Your task to perform on an android device: find which apps use the phone's location Image 0: 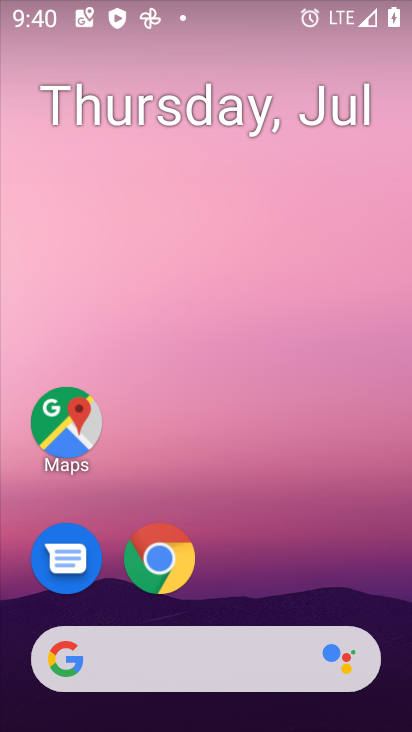
Step 0: drag from (380, 568) to (373, 91)
Your task to perform on an android device: find which apps use the phone's location Image 1: 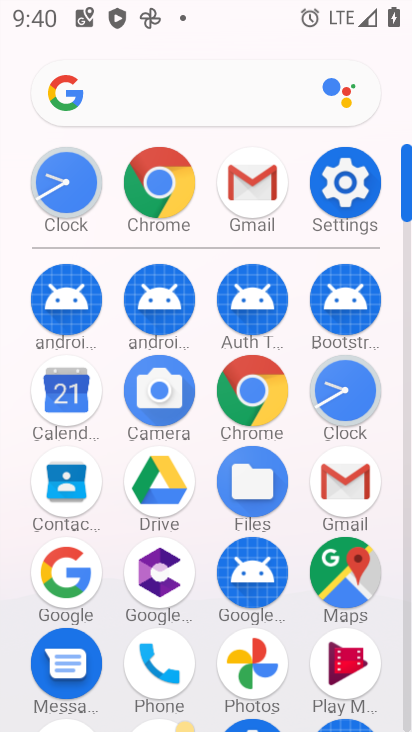
Step 1: click (343, 187)
Your task to perform on an android device: find which apps use the phone's location Image 2: 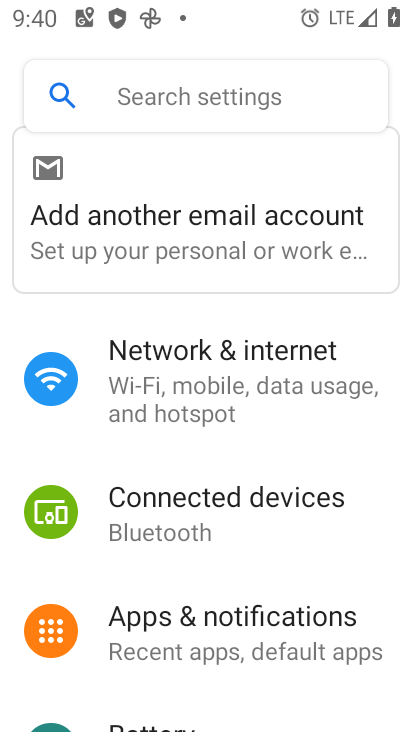
Step 2: drag from (351, 465) to (355, 345)
Your task to perform on an android device: find which apps use the phone's location Image 3: 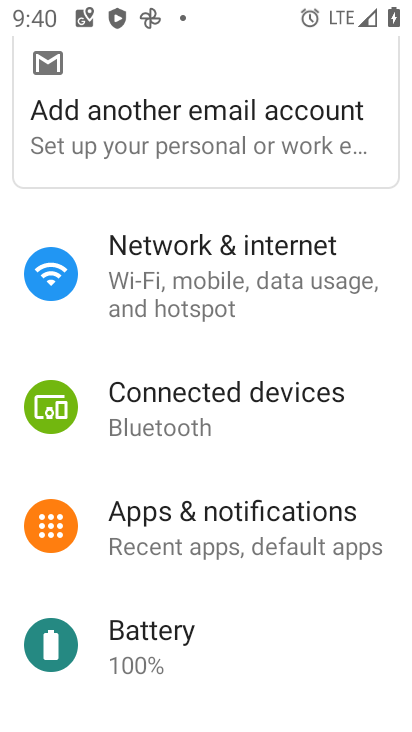
Step 3: drag from (360, 426) to (359, 322)
Your task to perform on an android device: find which apps use the phone's location Image 4: 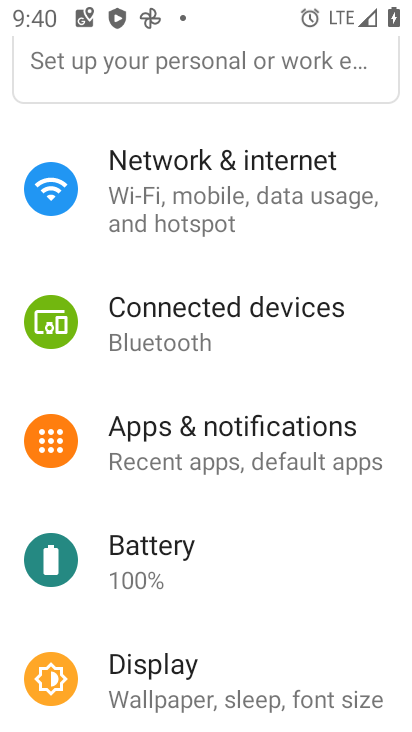
Step 4: drag from (335, 424) to (342, 289)
Your task to perform on an android device: find which apps use the phone's location Image 5: 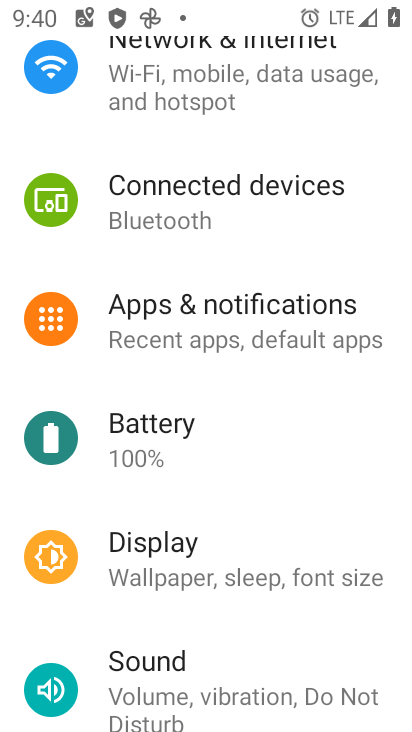
Step 5: drag from (335, 426) to (334, 279)
Your task to perform on an android device: find which apps use the phone's location Image 6: 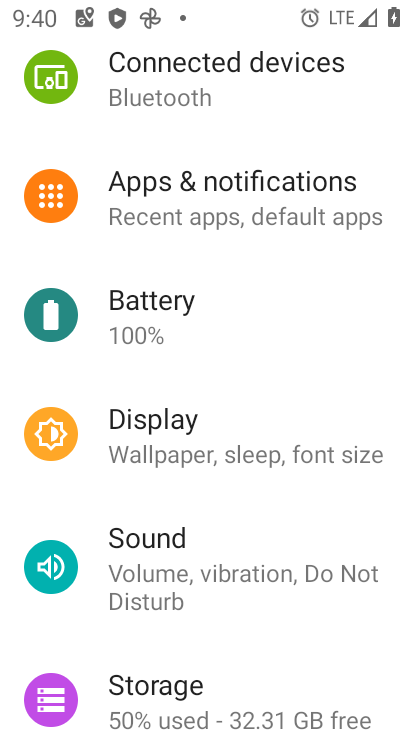
Step 6: drag from (318, 485) to (325, 333)
Your task to perform on an android device: find which apps use the phone's location Image 7: 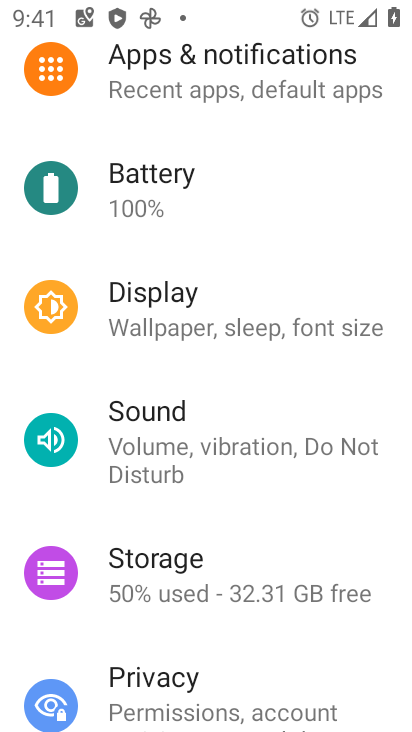
Step 7: drag from (323, 471) to (325, 341)
Your task to perform on an android device: find which apps use the phone's location Image 8: 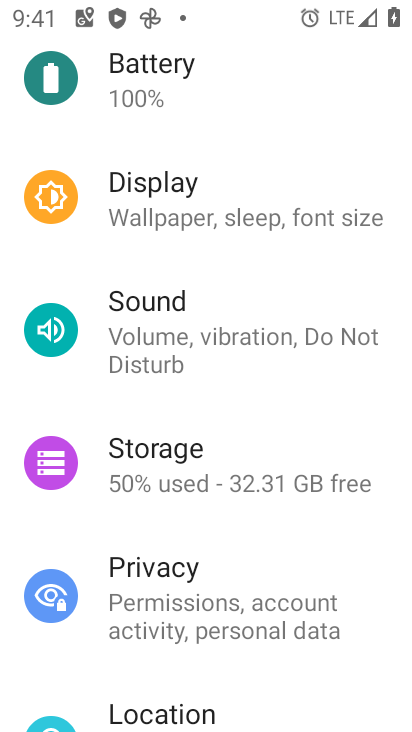
Step 8: drag from (329, 501) to (329, 388)
Your task to perform on an android device: find which apps use the phone's location Image 9: 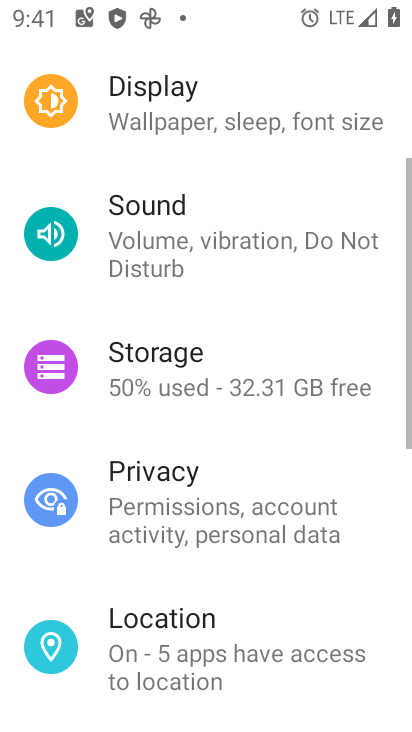
Step 9: drag from (334, 575) to (333, 458)
Your task to perform on an android device: find which apps use the phone's location Image 10: 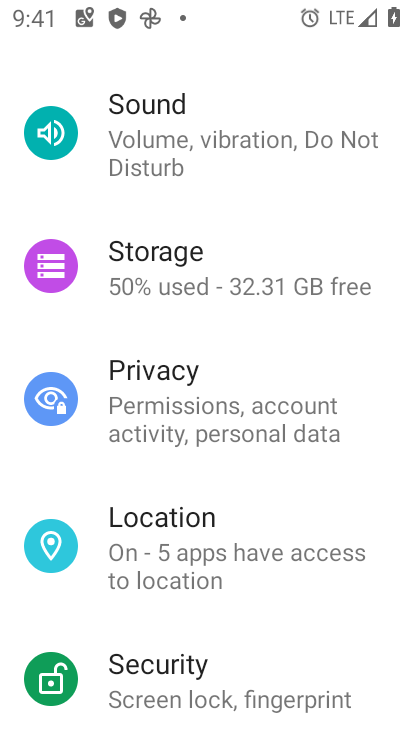
Step 10: click (259, 539)
Your task to perform on an android device: find which apps use the phone's location Image 11: 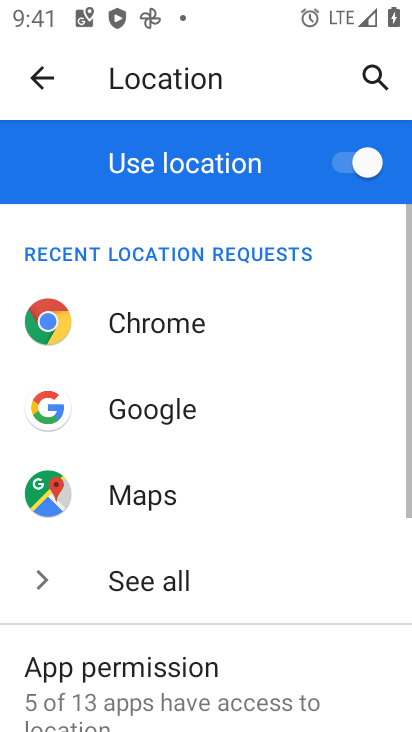
Step 11: drag from (279, 606) to (299, 487)
Your task to perform on an android device: find which apps use the phone's location Image 12: 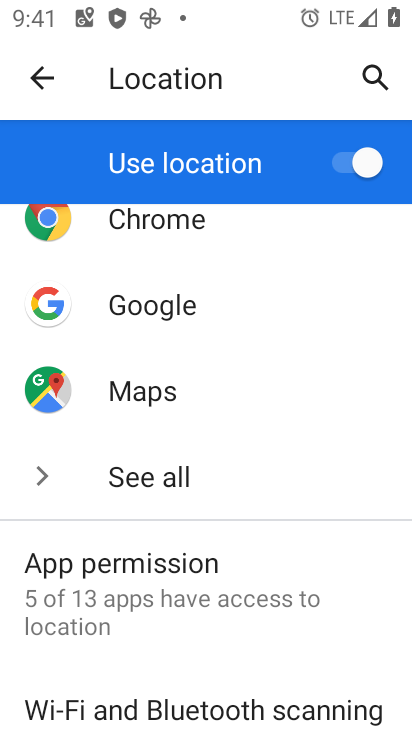
Step 12: click (295, 593)
Your task to perform on an android device: find which apps use the phone's location Image 13: 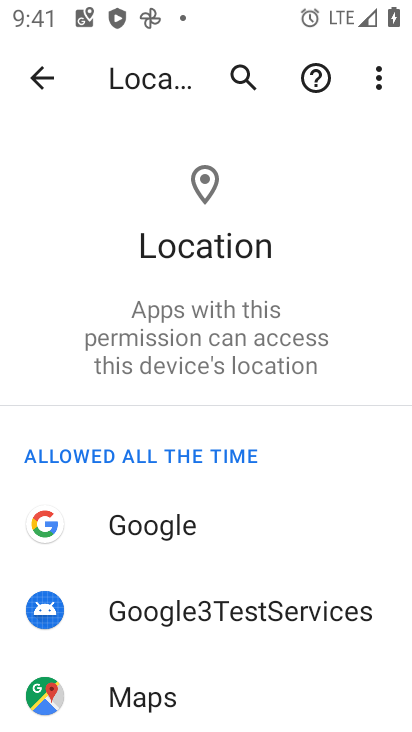
Step 13: drag from (295, 590) to (301, 494)
Your task to perform on an android device: find which apps use the phone's location Image 14: 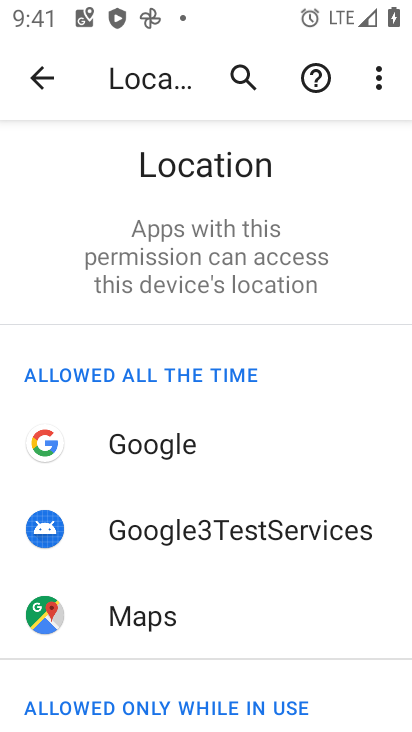
Step 14: drag from (324, 600) to (324, 499)
Your task to perform on an android device: find which apps use the phone's location Image 15: 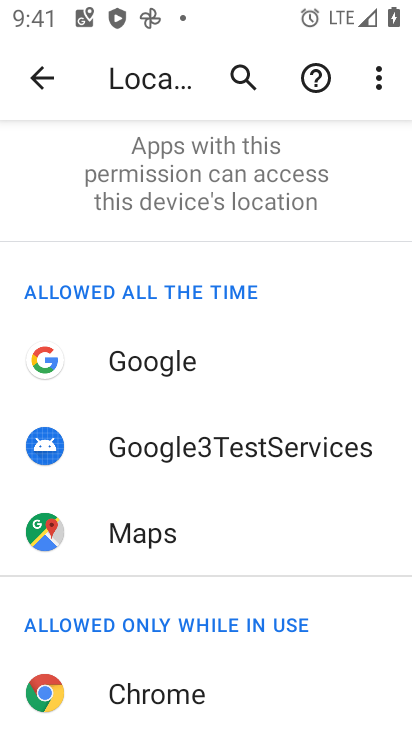
Step 15: drag from (328, 616) to (325, 494)
Your task to perform on an android device: find which apps use the phone's location Image 16: 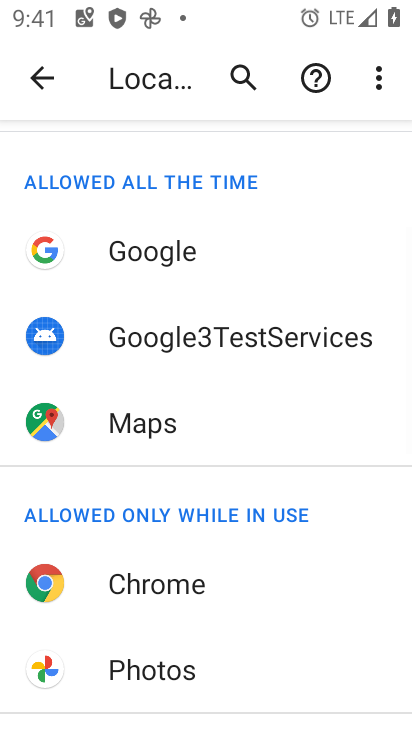
Step 16: drag from (309, 616) to (303, 518)
Your task to perform on an android device: find which apps use the phone's location Image 17: 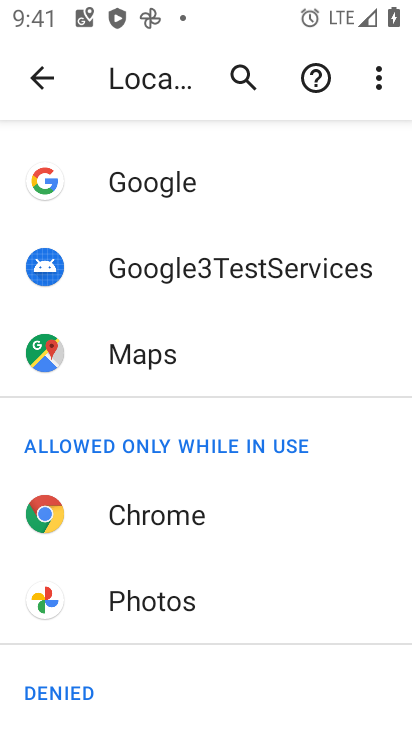
Step 17: drag from (306, 609) to (306, 508)
Your task to perform on an android device: find which apps use the phone's location Image 18: 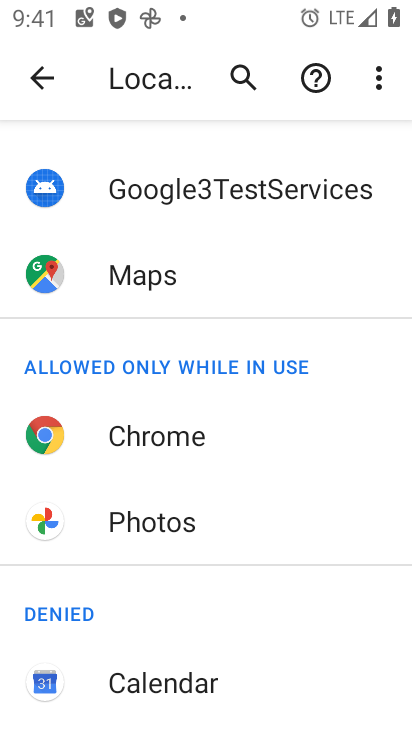
Step 18: click (257, 529)
Your task to perform on an android device: find which apps use the phone's location Image 19: 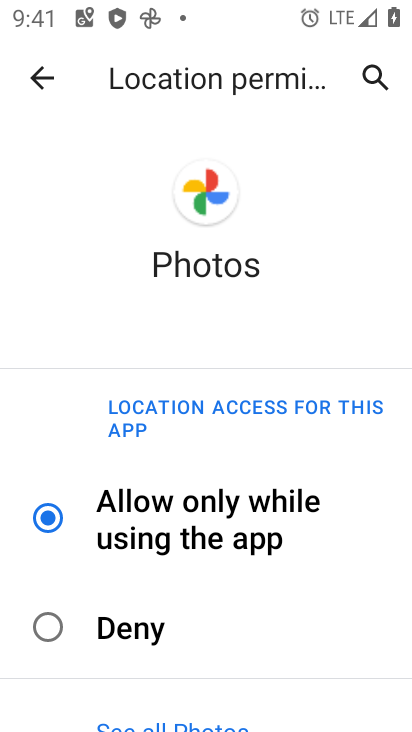
Step 19: task complete